Your task to perform on an android device: turn off location history Image 0: 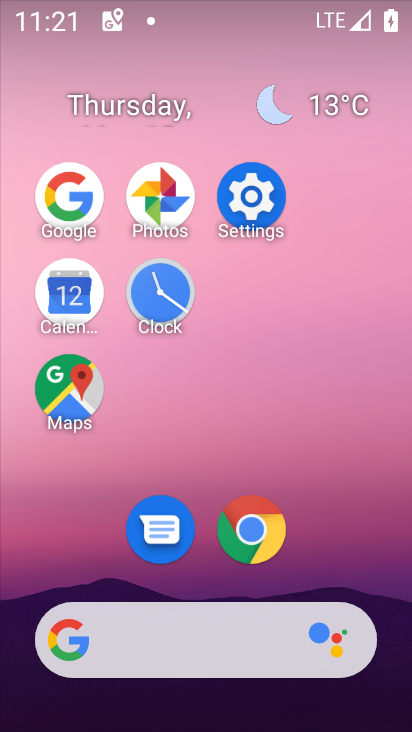
Step 0: click (280, 197)
Your task to perform on an android device: turn off location history Image 1: 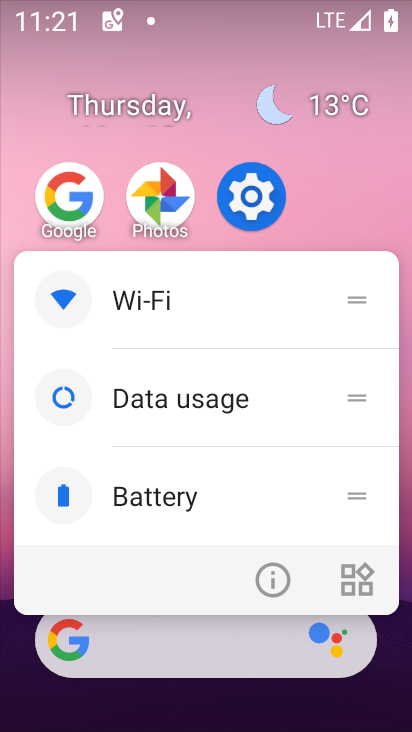
Step 1: click (263, 202)
Your task to perform on an android device: turn off location history Image 2: 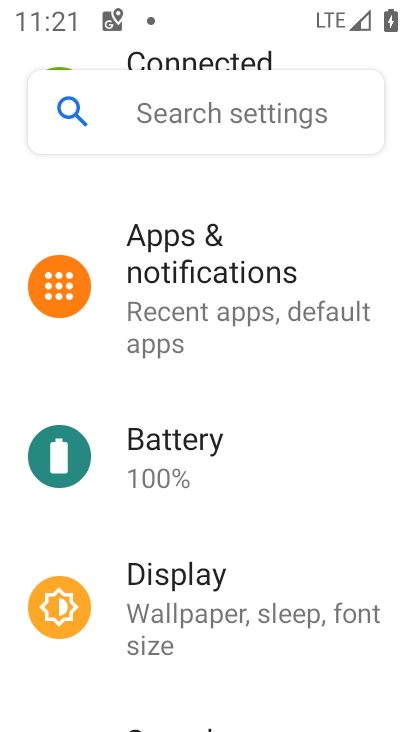
Step 2: drag from (294, 523) to (285, 231)
Your task to perform on an android device: turn off location history Image 3: 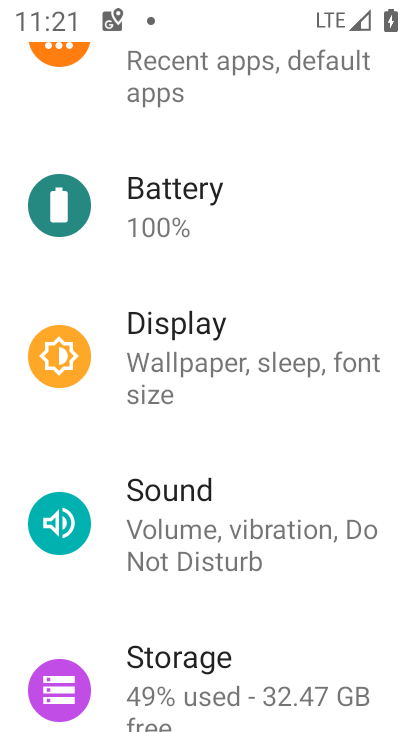
Step 3: drag from (291, 568) to (278, 214)
Your task to perform on an android device: turn off location history Image 4: 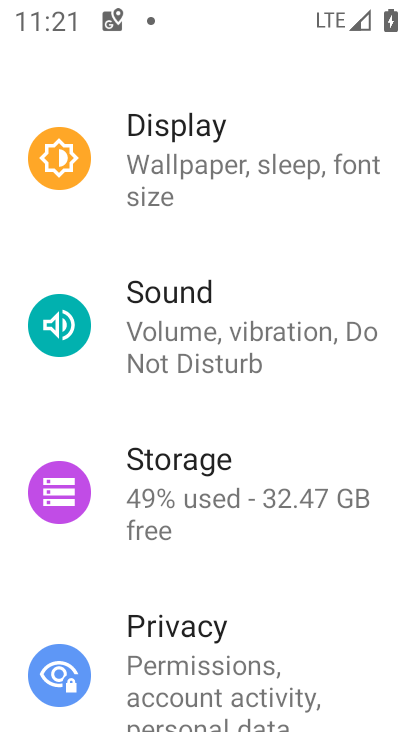
Step 4: drag from (287, 577) to (283, 193)
Your task to perform on an android device: turn off location history Image 5: 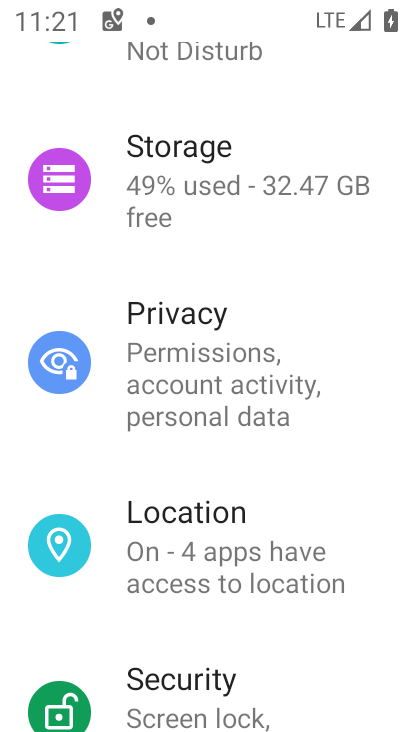
Step 5: click (256, 562)
Your task to perform on an android device: turn off location history Image 6: 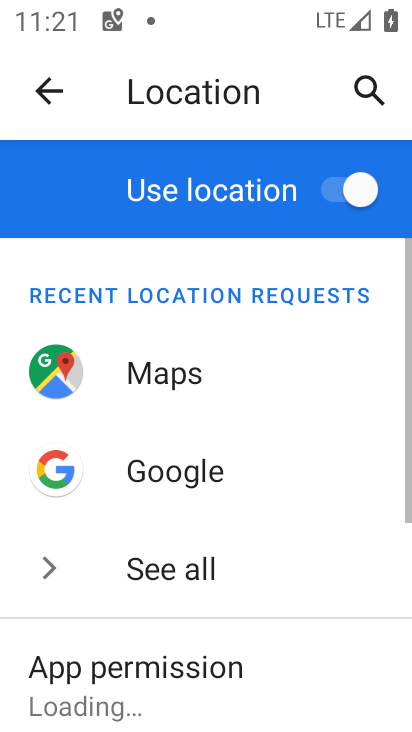
Step 6: drag from (250, 517) to (244, 168)
Your task to perform on an android device: turn off location history Image 7: 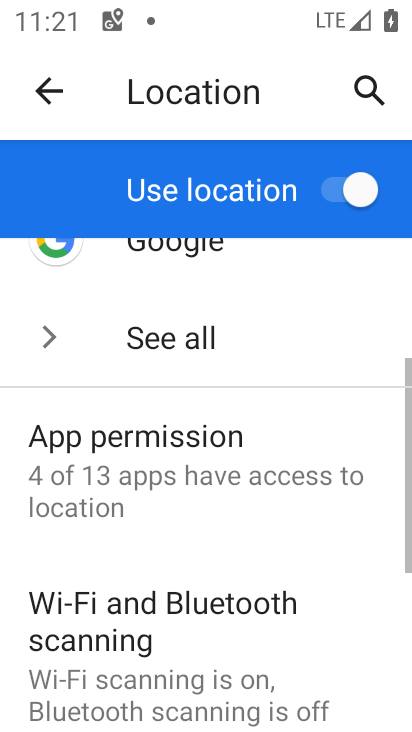
Step 7: drag from (241, 647) to (265, 253)
Your task to perform on an android device: turn off location history Image 8: 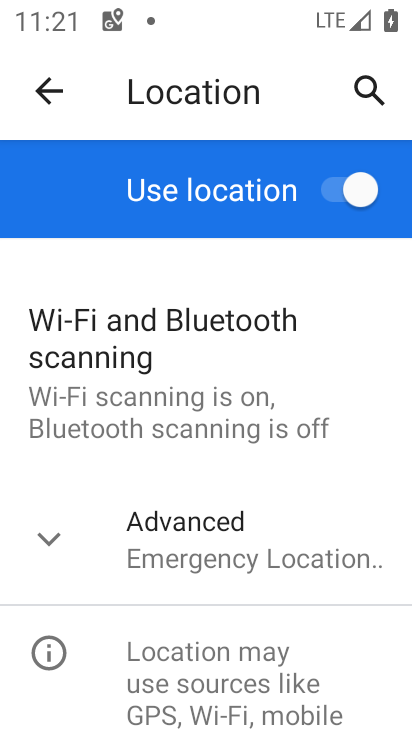
Step 8: click (221, 556)
Your task to perform on an android device: turn off location history Image 9: 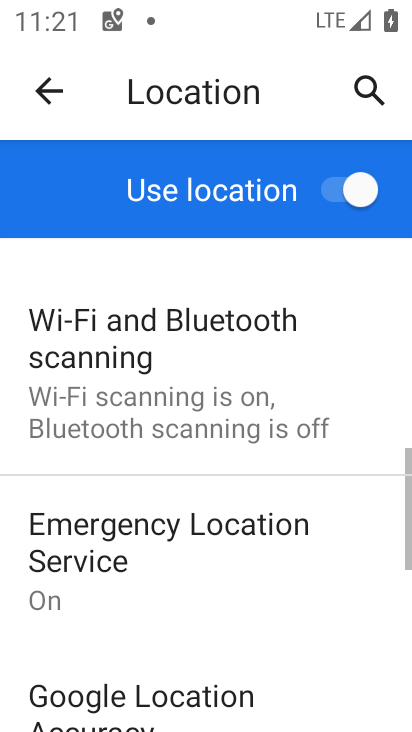
Step 9: drag from (245, 643) to (284, 263)
Your task to perform on an android device: turn off location history Image 10: 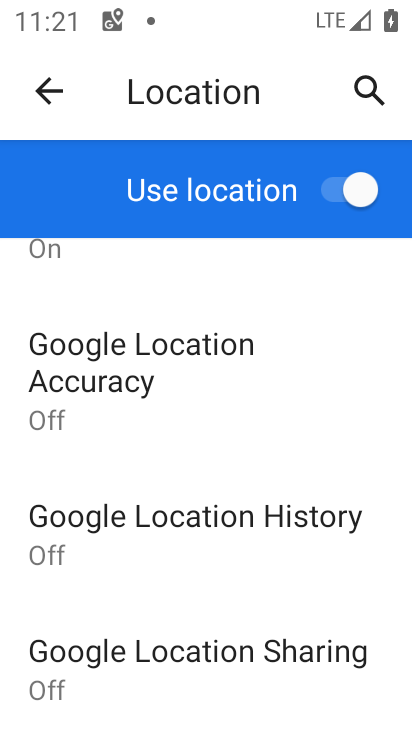
Step 10: click (291, 499)
Your task to perform on an android device: turn off location history Image 11: 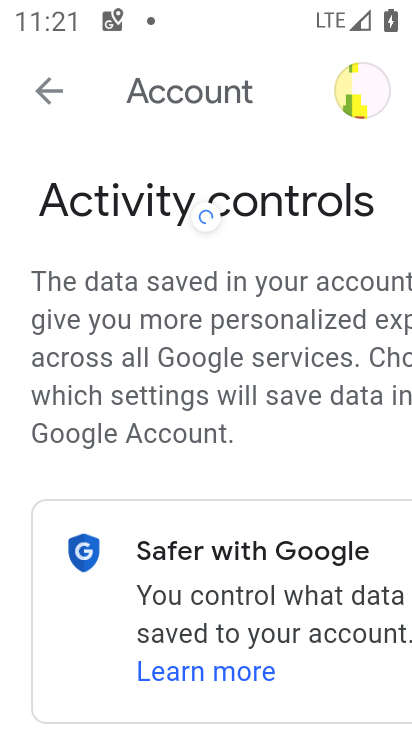
Step 11: drag from (296, 640) to (288, 190)
Your task to perform on an android device: turn off location history Image 12: 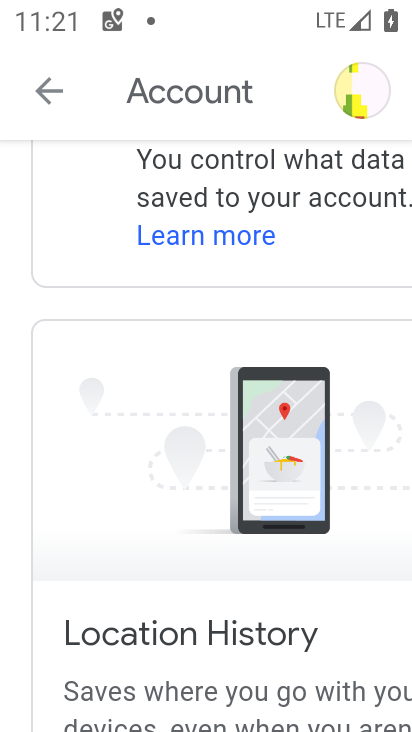
Step 12: drag from (281, 646) to (289, 175)
Your task to perform on an android device: turn off location history Image 13: 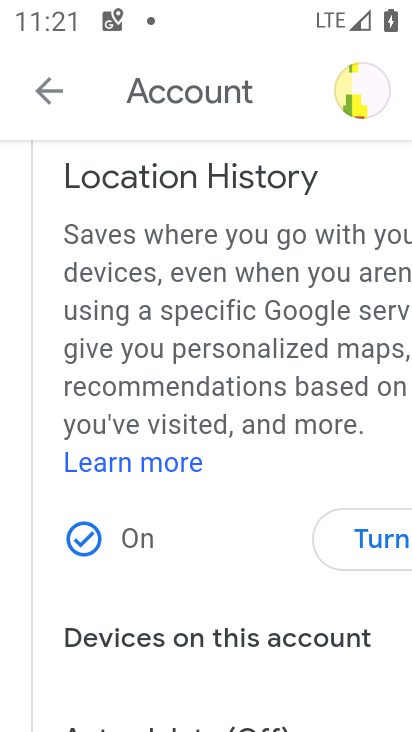
Step 13: click (365, 530)
Your task to perform on an android device: turn off location history Image 14: 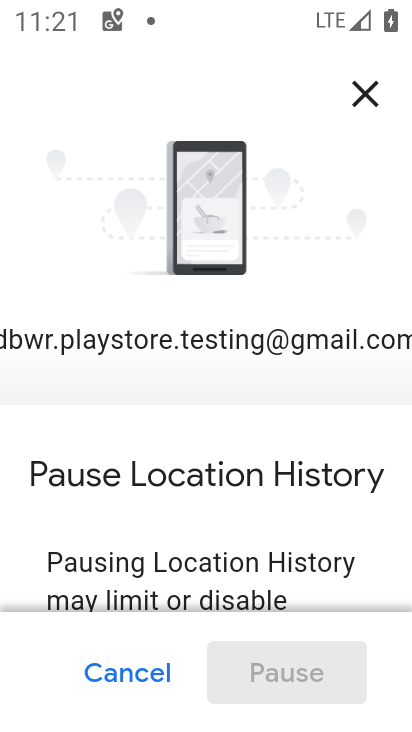
Step 14: drag from (363, 596) to (278, 205)
Your task to perform on an android device: turn off location history Image 15: 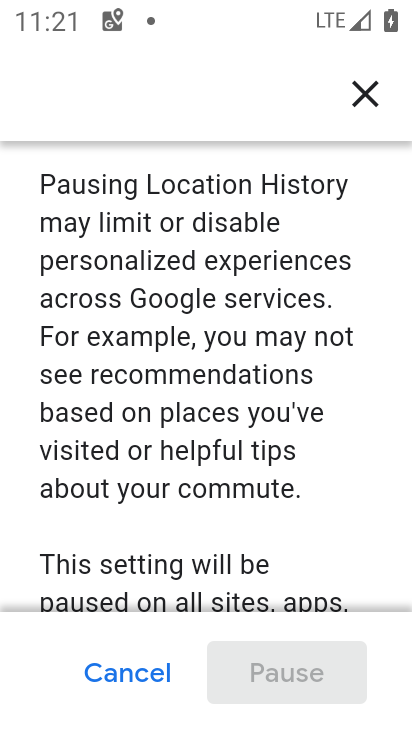
Step 15: drag from (326, 563) to (294, 159)
Your task to perform on an android device: turn off location history Image 16: 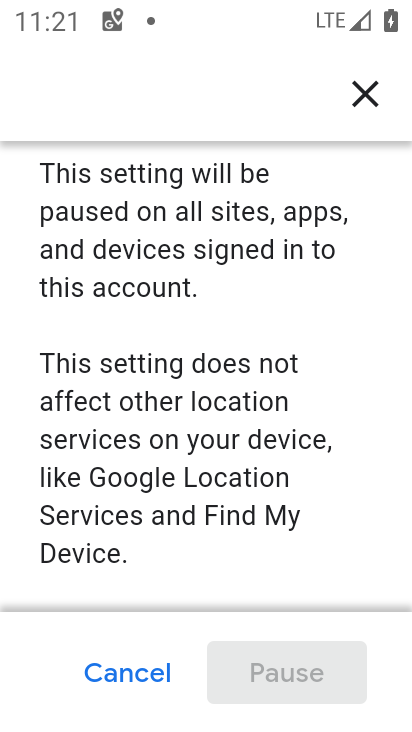
Step 16: drag from (356, 571) to (300, 179)
Your task to perform on an android device: turn off location history Image 17: 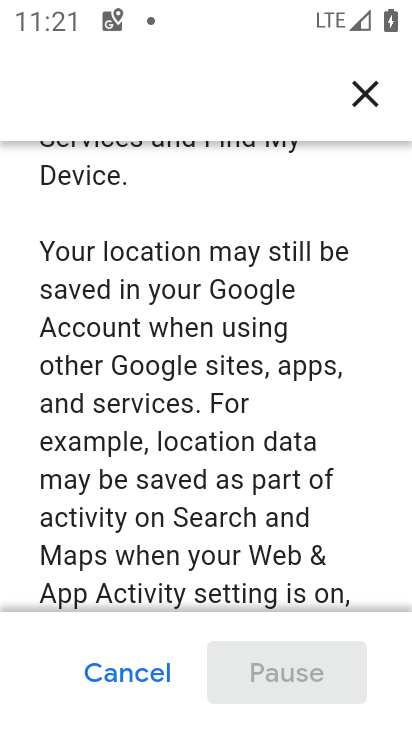
Step 17: drag from (347, 559) to (299, 175)
Your task to perform on an android device: turn off location history Image 18: 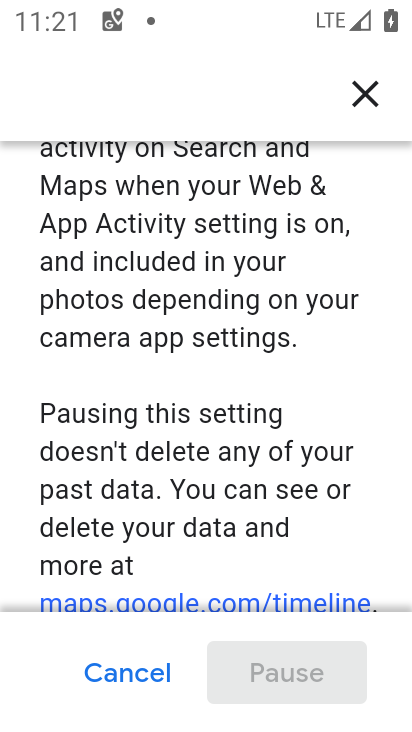
Step 18: drag from (311, 551) to (275, 155)
Your task to perform on an android device: turn off location history Image 19: 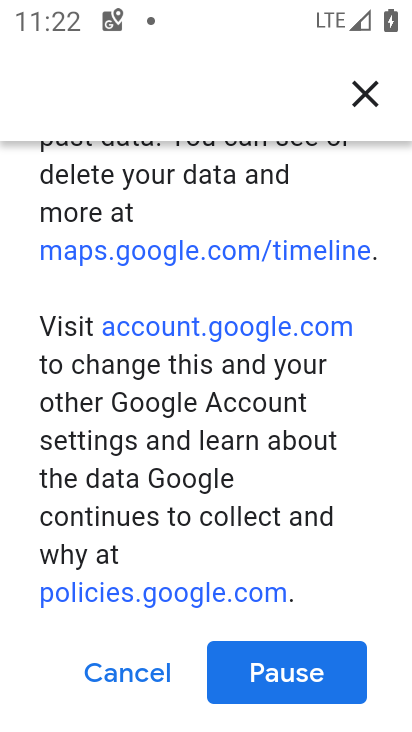
Step 19: click (338, 653)
Your task to perform on an android device: turn off location history Image 20: 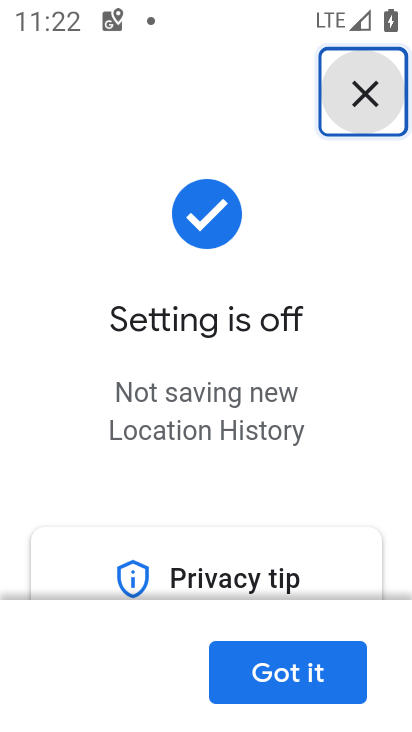
Step 20: click (289, 674)
Your task to perform on an android device: turn off location history Image 21: 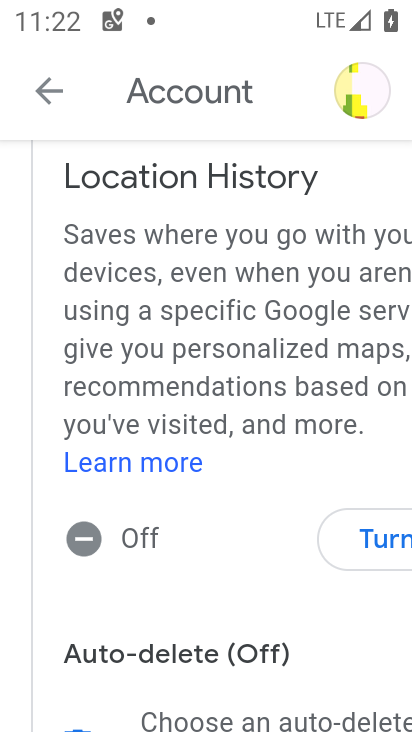
Step 21: task complete